Your task to perform on an android device: Open accessibility settings Image 0: 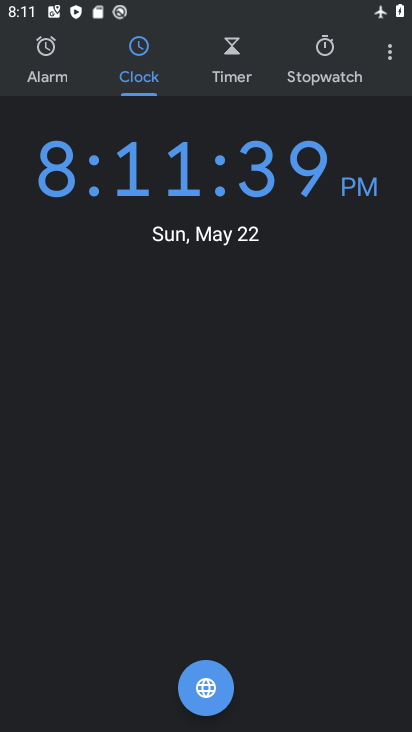
Step 0: press home button
Your task to perform on an android device: Open accessibility settings Image 1: 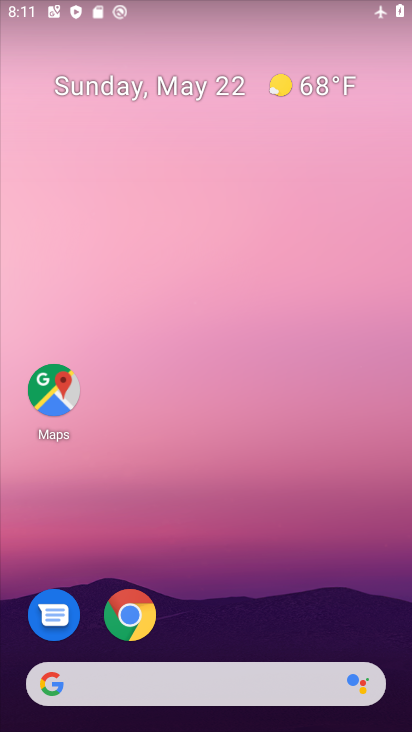
Step 1: drag from (219, 654) to (202, 153)
Your task to perform on an android device: Open accessibility settings Image 2: 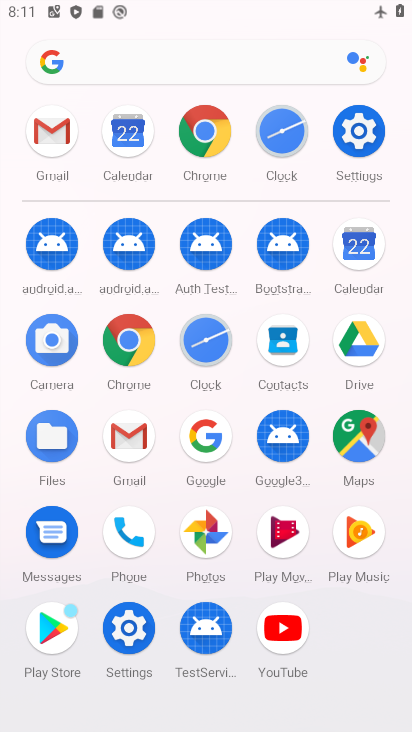
Step 2: click (136, 619)
Your task to perform on an android device: Open accessibility settings Image 3: 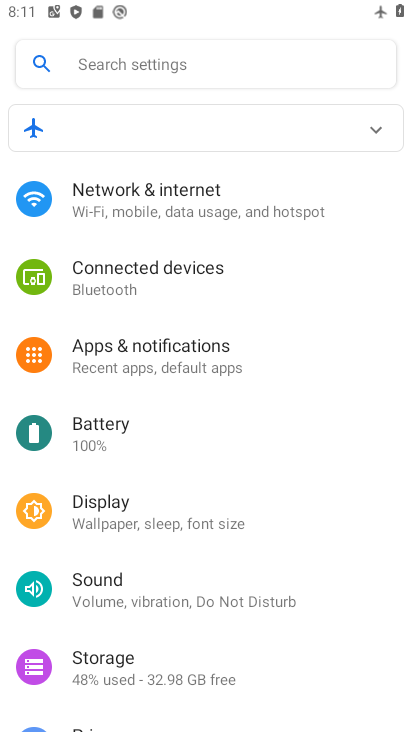
Step 3: drag from (136, 619) to (74, 106)
Your task to perform on an android device: Open accessibility settings Image 4: 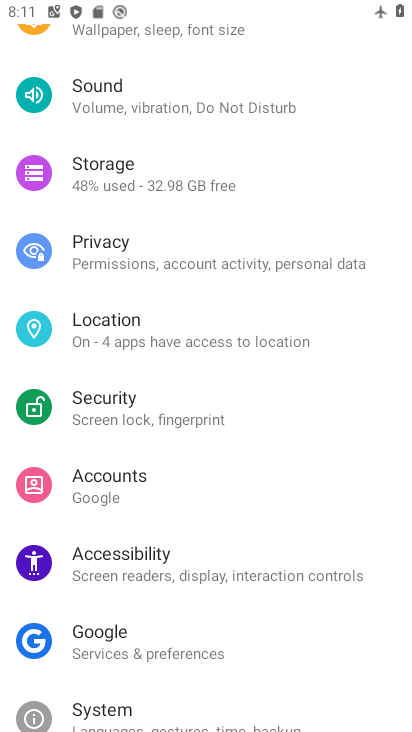
Step 4: drag from (274, 583) to (234, 19)
Your task to perform on an android device: Open accessibility settings Image 5: 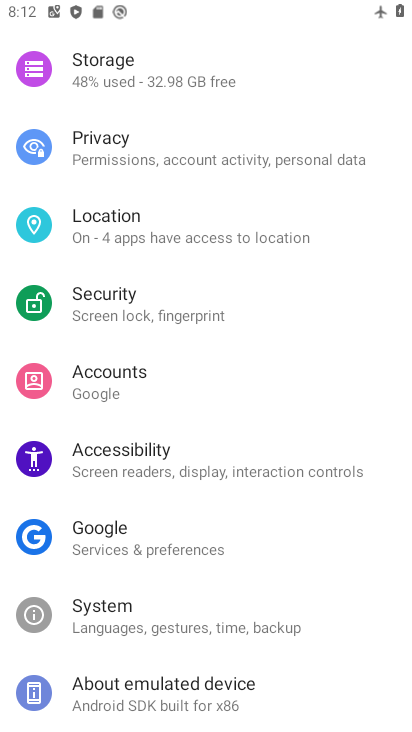
Step 5: click (99, 458)
Your task to perform on an android device: Open accessibility settings Image 6: 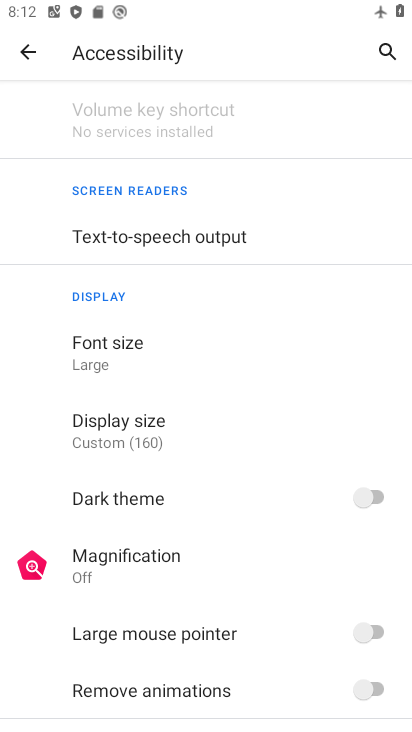
Step 6: task complete